Your task to perform on an android device: Clear the shopping cart on amazon. Search for razer blade on amazon, select the first entry, add it to the cart, then select checkout. Image 0: 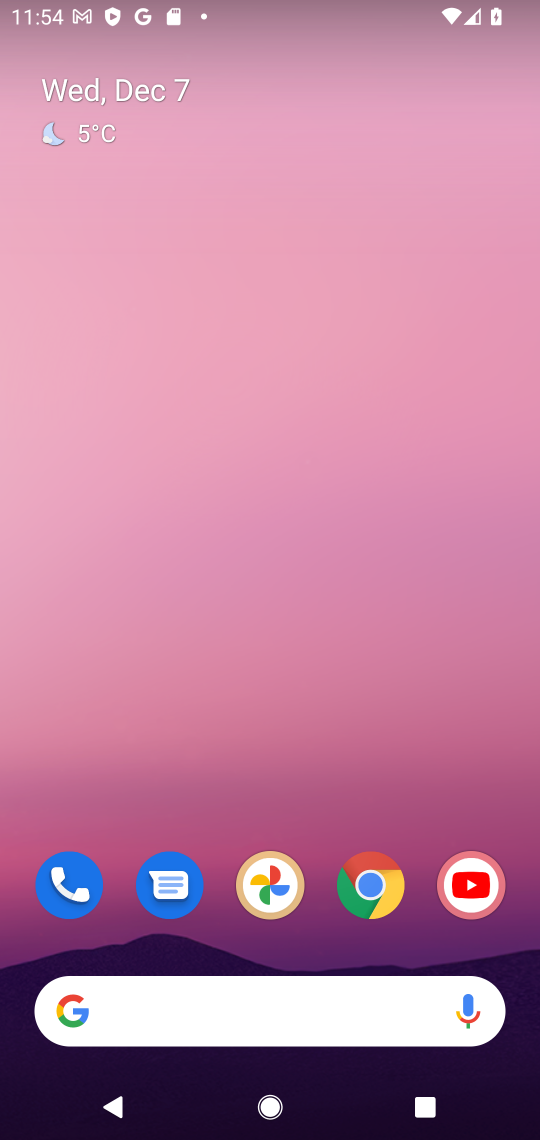
Step 0: click (373, 875)
Your task to perform on an android device: Clear the shopping cart on amazon. Search for razer blade on amazon, select the first entry, add it to the cart, then select checkout. Image 1: 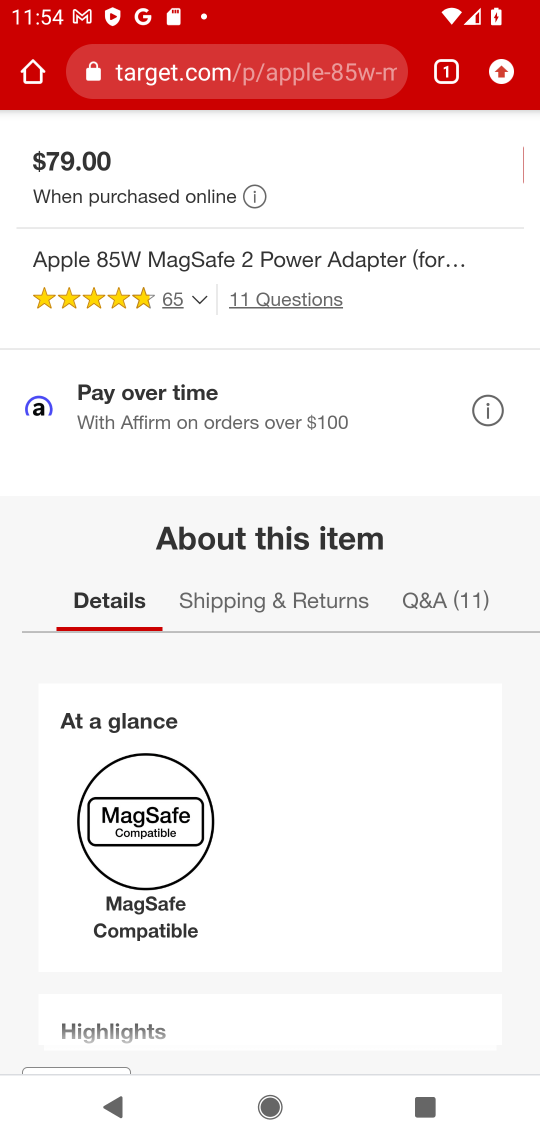
Step 1: click (247, 74)
Your task to perform on an android device: Clear the shopping cart on amazon. Search for razer blade on amazon, select the first entry, add it to the cart, then select checkout. Image 2: 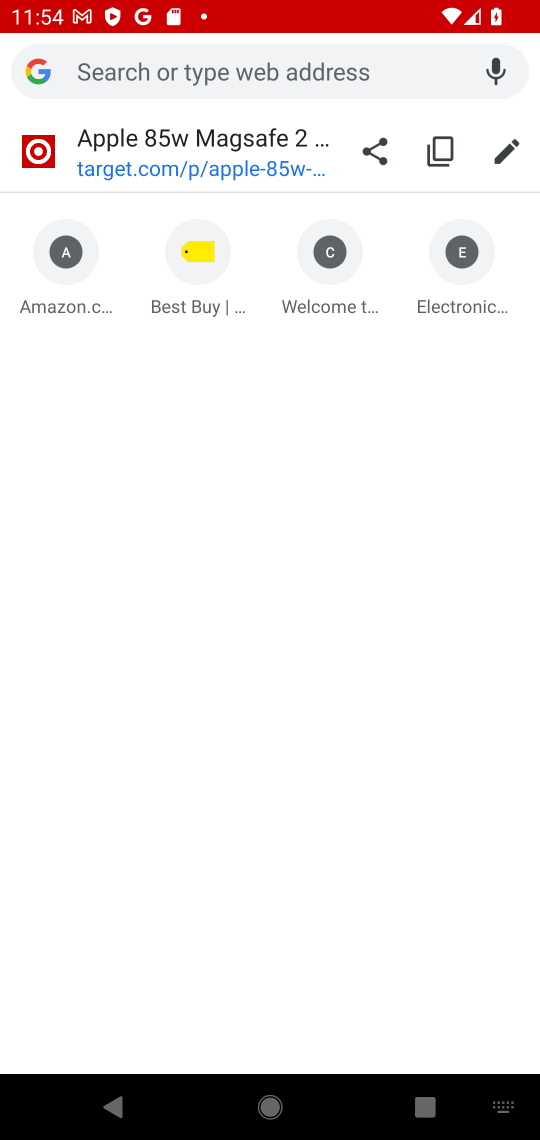
Step 2: click (61, 250)
Your task to perform on an android device: Clear the shopping cart on amazon. Search for razer blade on amazon, select the first entry, add it to the cart, then select checkout. Image 3: 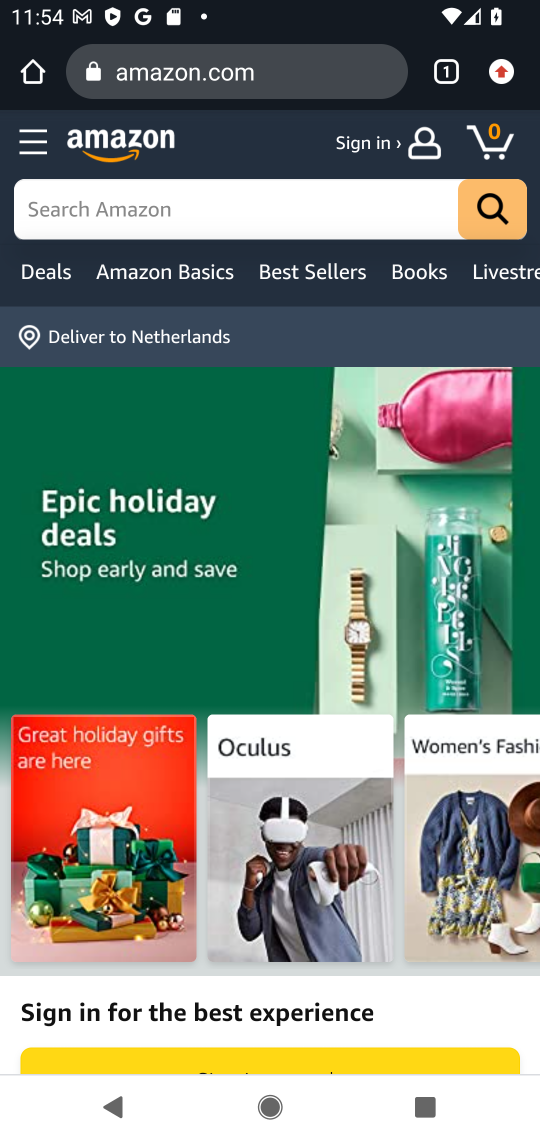
Step 3: click (251, 213)
Your task to perform on an android device: Clear the shopping cart on amazon. Search for razer blade on amazon, select the first entry, add it to the cart, then select checkout. Image 4: 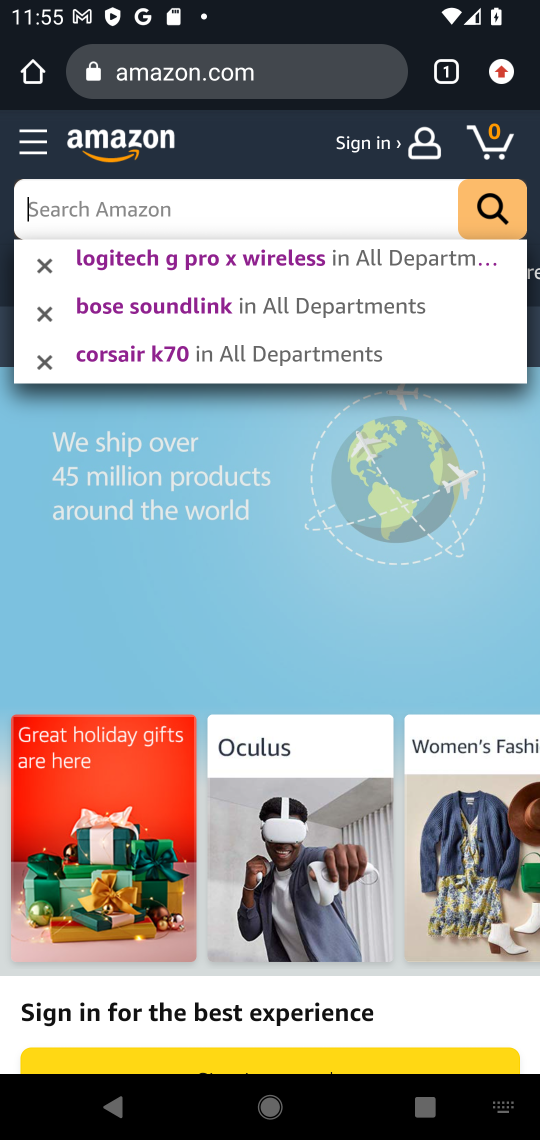
Step 4: type "RAZER BLADE"
Your task to perform on an android device: Clear the shopping cart on amazon. Search for razer blade on amazon, select the first entry, add it to the cart, then select checkout. Image 5: 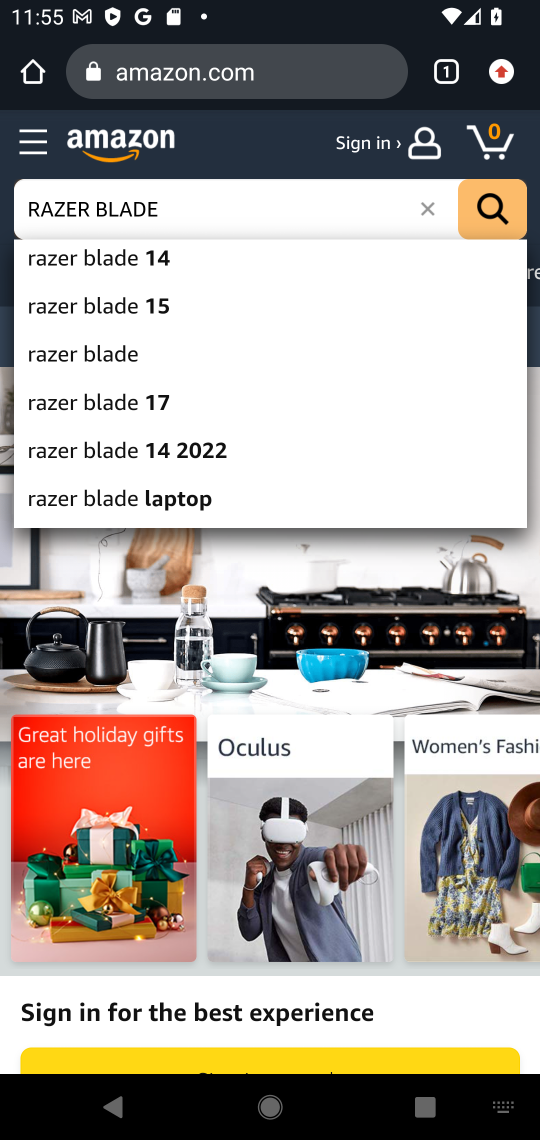
Step 5: click (151, 263)
Your task to perform on an android device: Clear the shopping cart on amazon. Search for razer blade on amazon, select the first entry, add it to the cart, then select checkout. Image 6: 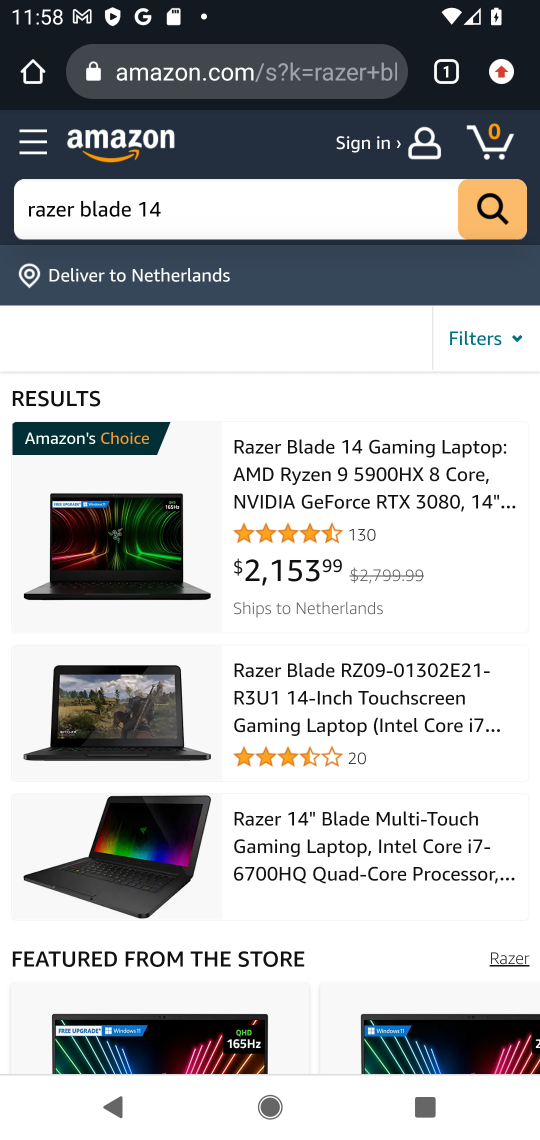
Step 6: click (109, 549)
Your task to perform on an android device: Clear the shopping cart on amazon. Search for razer blade on amazon, select the first entry, add it to the cart, then select checkout. Image 7: 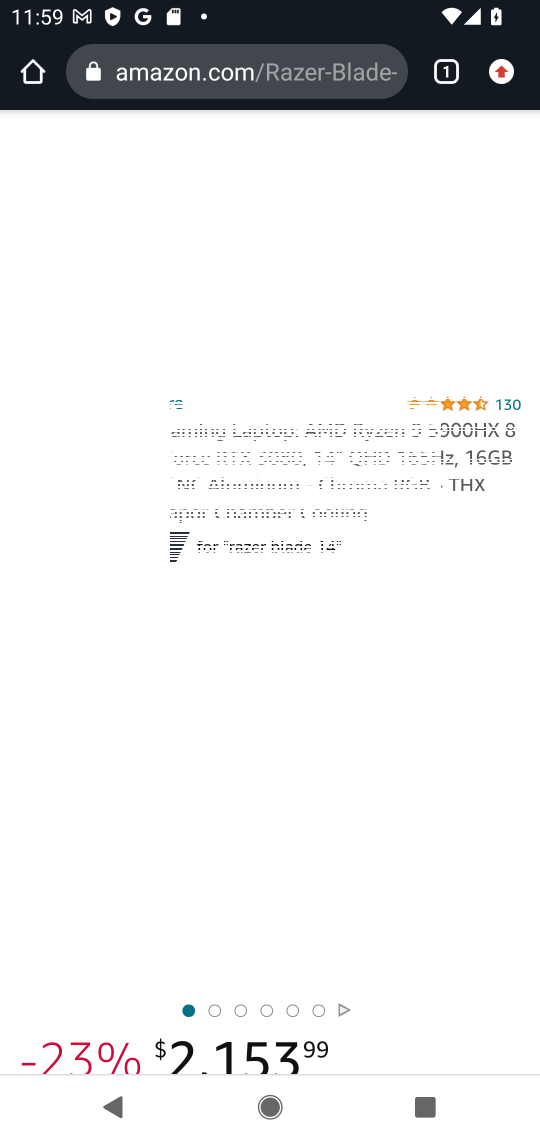
Step 7: drag from (286, 976) to (306, 205)
Your task to perform on an android device: Clear the shopping cart on amazon. Search for razer blade on amazon, select the first entry, add it to the cart, then select checkout. Image 8: 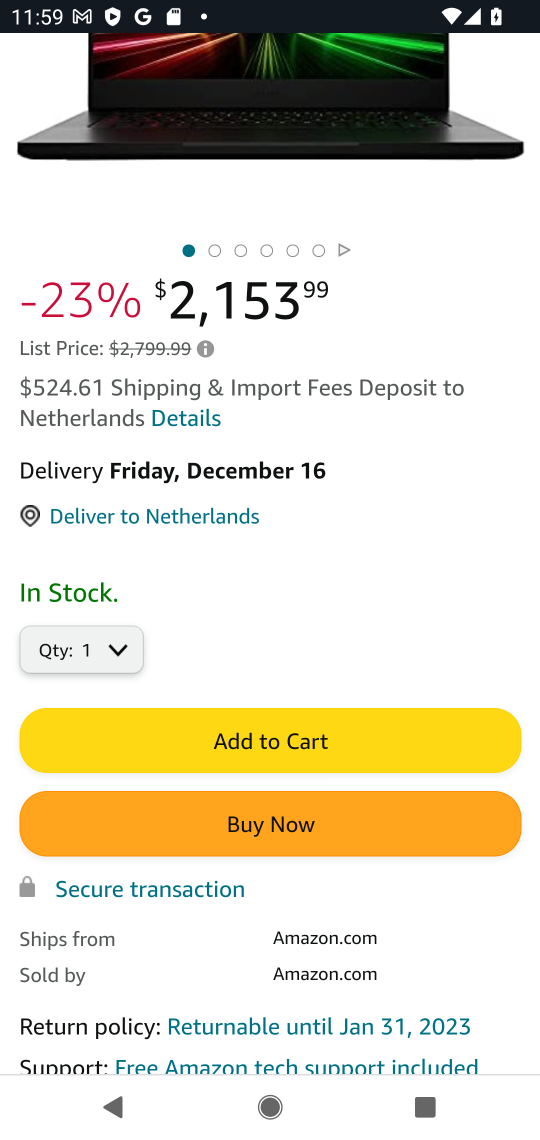
Step 8: click (301, 734)
Your task to perform on an android device: Clear the shopping cart on amazon. Search for razer blade on amazon, select the first entry, add it to the cart, then select checkout. Image 9: 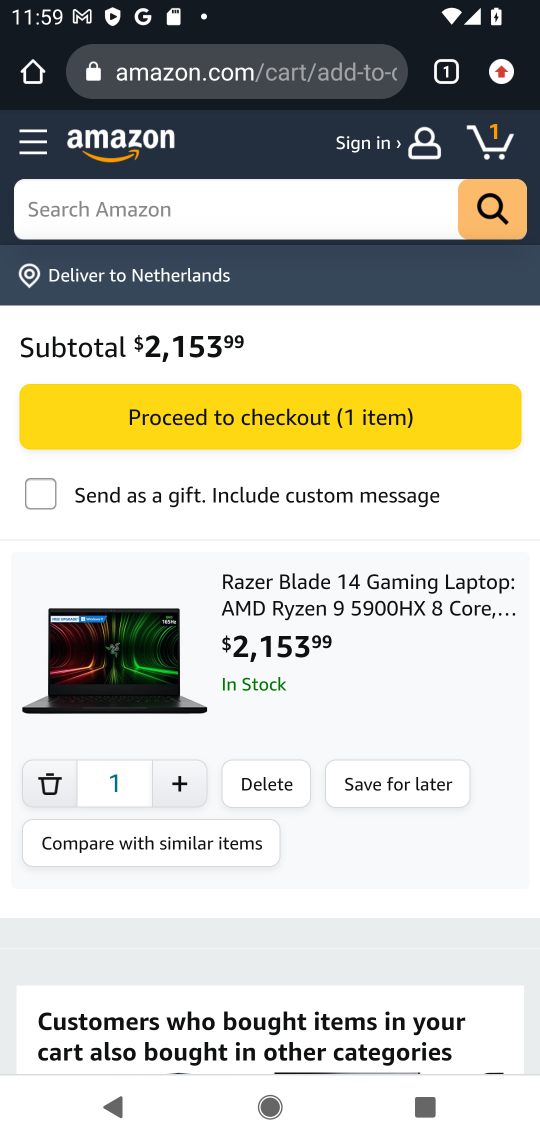
Step 9: click (414, 417)
Your task to perform on an android device: Clear the shopping cart on amazon. Search for razer blade on amazon, select the first entry, add it to the cart, then select checkout. Image 10: 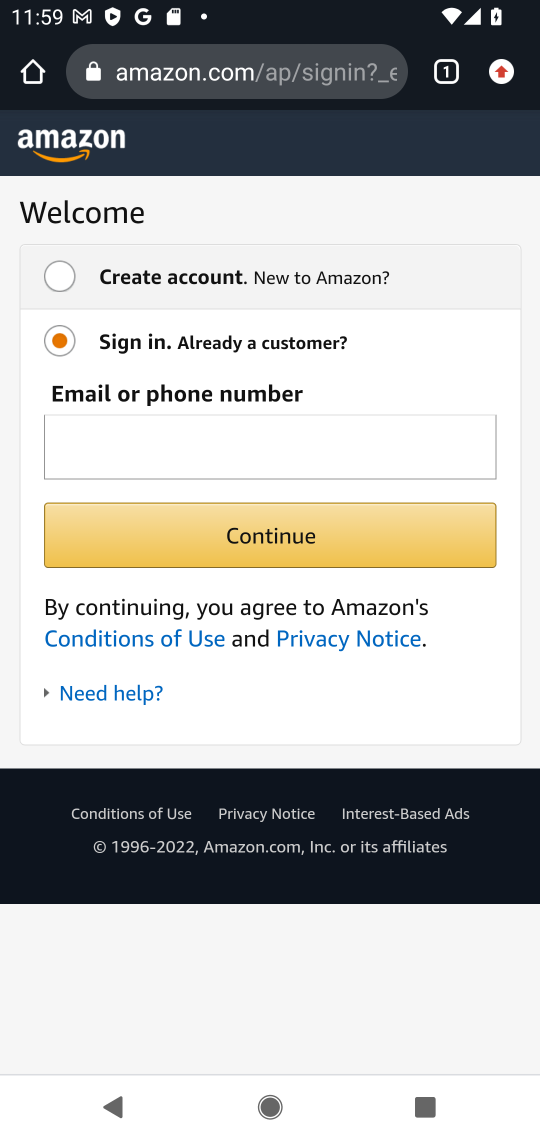
Step 10: task complete